Your task to perform on an android device: Open the calendar app, open the side menu, and click the "Day" option Image 0: 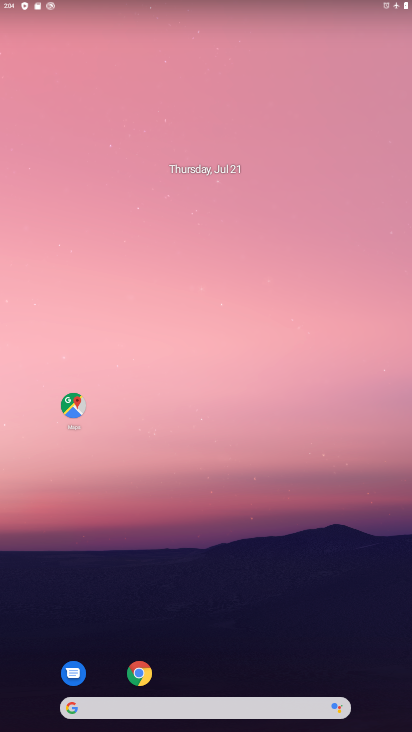
Step 0: drag from (199, 641) to (180, 107)
Your task to perform on an android device: Open the calendar app, open the side menu, and click the "Day" option Image 1: 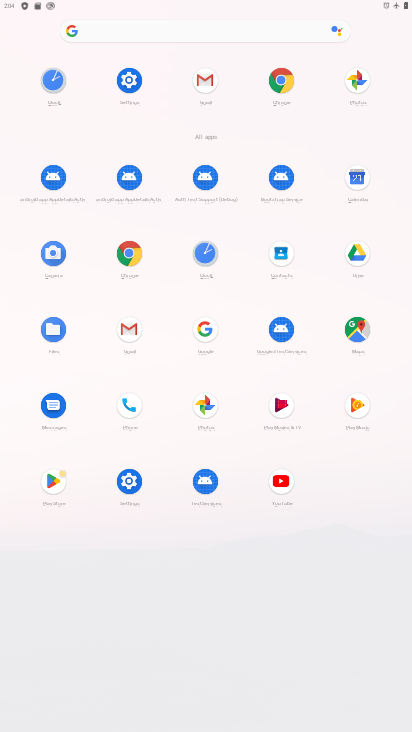
Step 1: click (349, 184)
Your task to perform on an android device: Open the calendar app, open the side menu, and click the "Day" option Image 2: 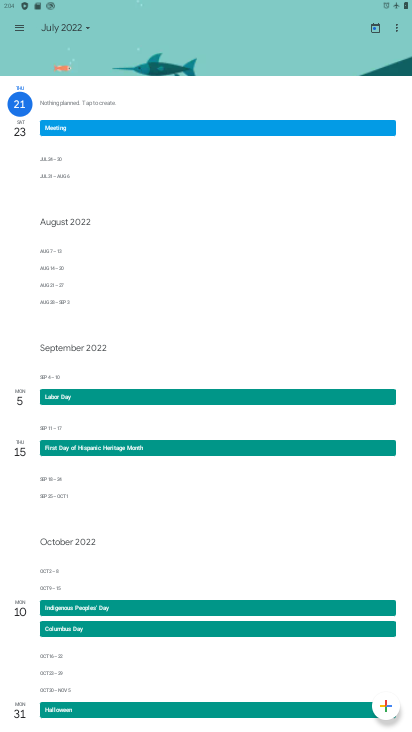
Step 2: click (20, 30)
Your task to perform on an android device: Open the calendar app, open the side menu, and click the "Day" option Image 3: 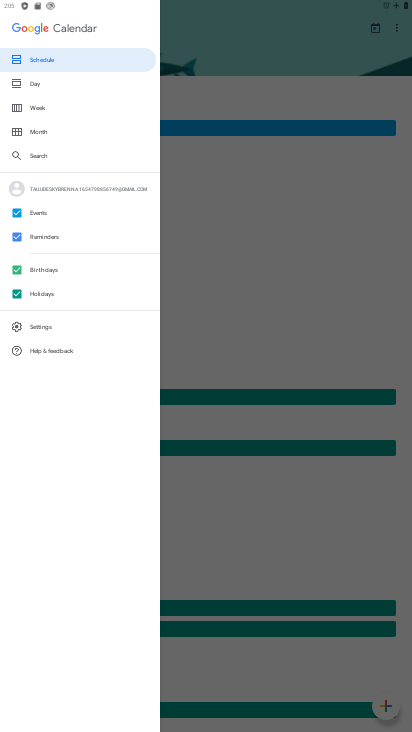
Step 3: click (40, 83)
Your task to perform on an android device: Open the calendar app, open the side menu, and click the "Day" option Image 4: 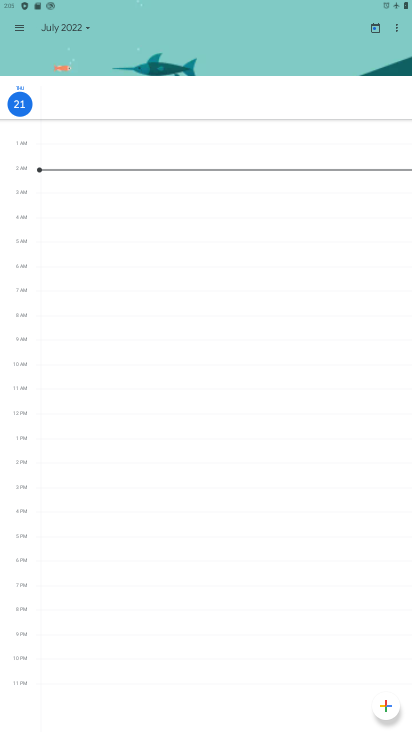
Step 4: task complete